Your task to perform on an android device: open a bookmark in the chrome app Image 0: 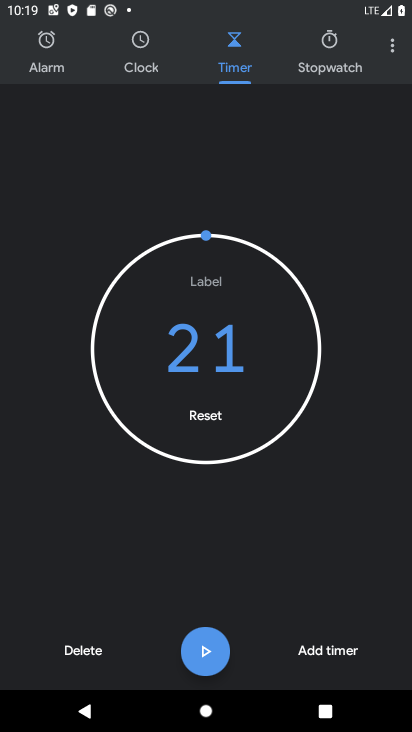
Step 0: press home button
Your task to perform on an android device: open a bookmark in the chrome app Image 1: 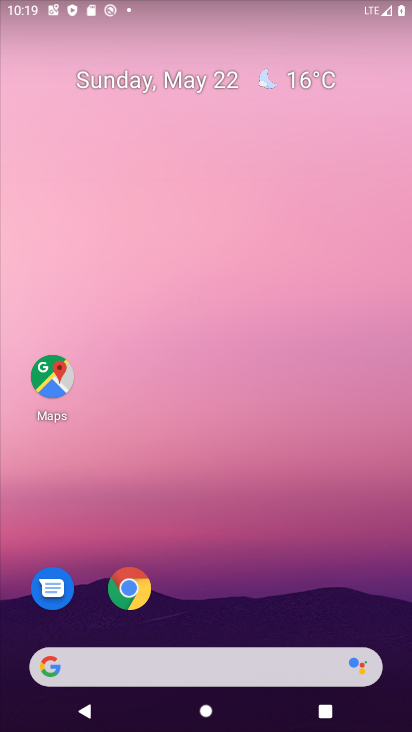
Step 1: click (129, 575)
Your task to perform on an android device: open a bookmark in the chrome app Image 2: 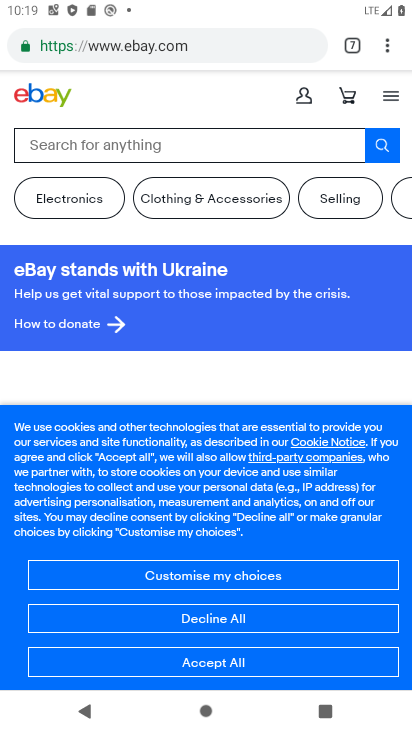
Step 2: click (392, 49)
Your task to perform on an android device: open a bookmark in the chrome app Image 3: 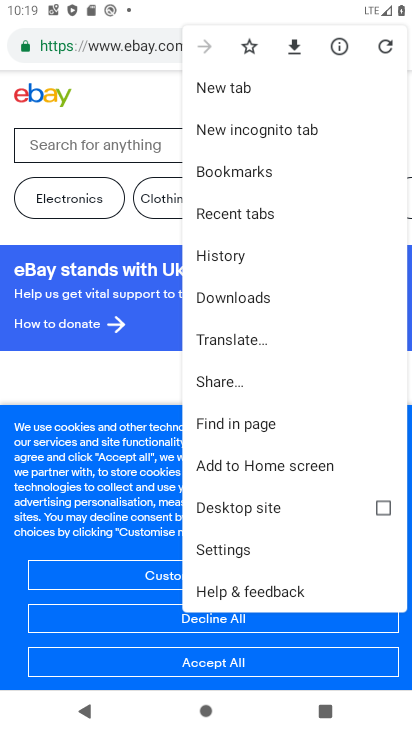
Step 3: click (299, 172)
Your task to perform on an android device: open a bookmark in the chrome app Image 4: 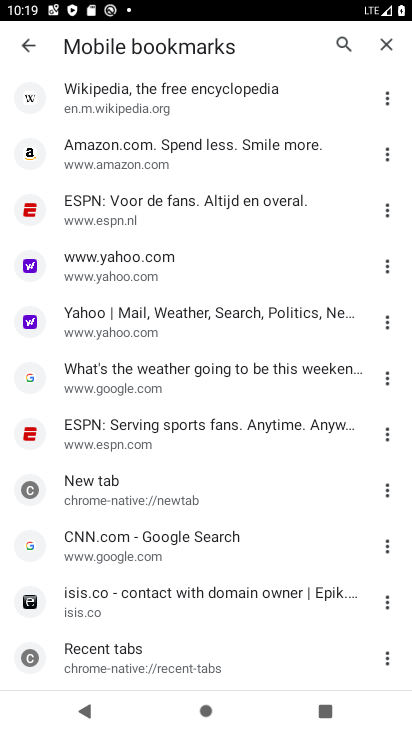
Step 4: click (129, 329)
Your task to perform on an android device: open a bookmark in the chrome app Image 5: 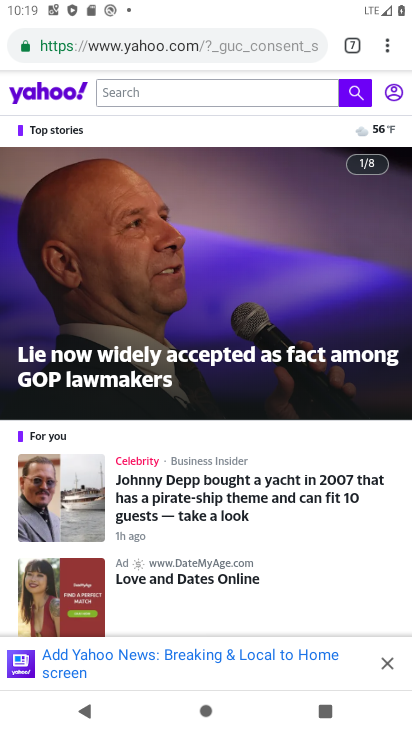
Step 5: task complete